Your task to perform on an android device: check the backup settings in the google photos Image 0: 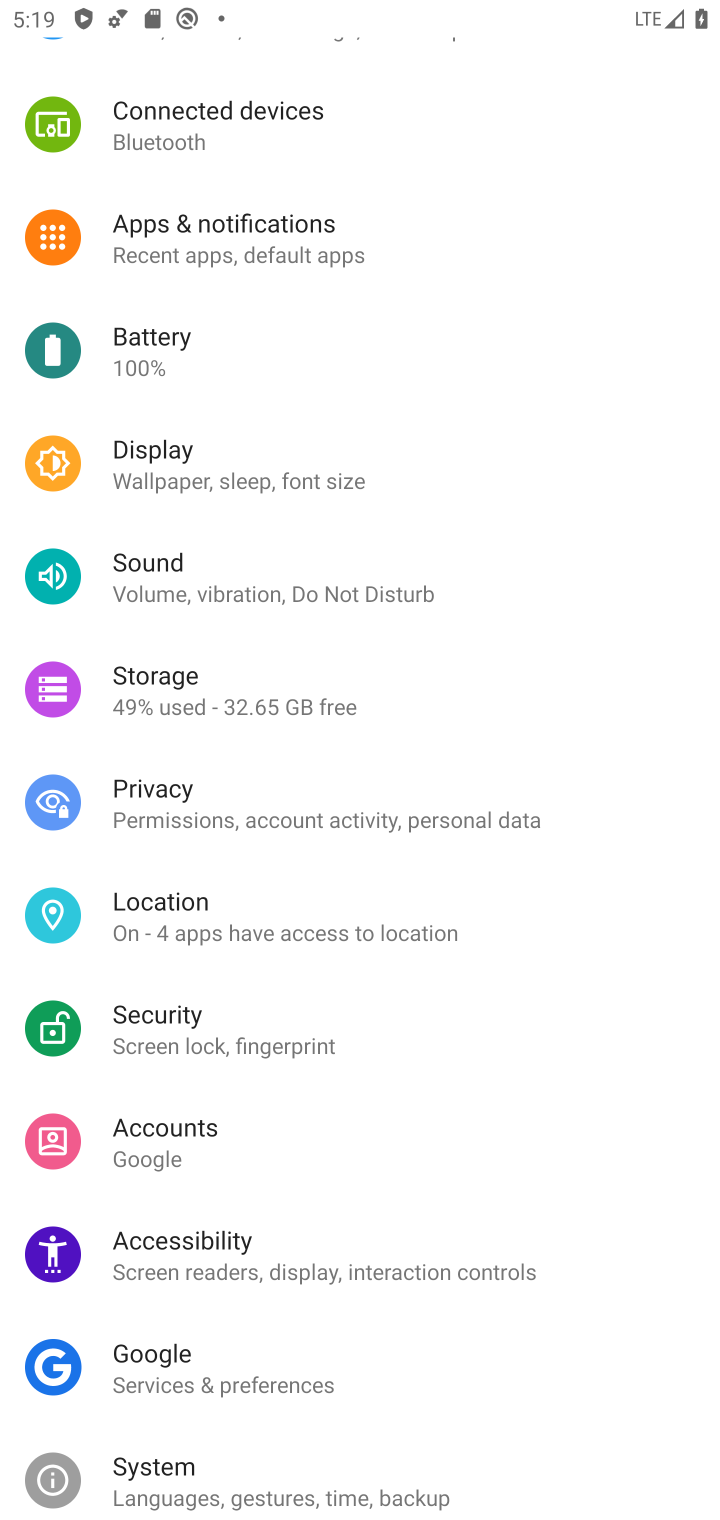
Step 0: press back button
Your task to perform on an android device: check the backup settings in the google photos Image 1: 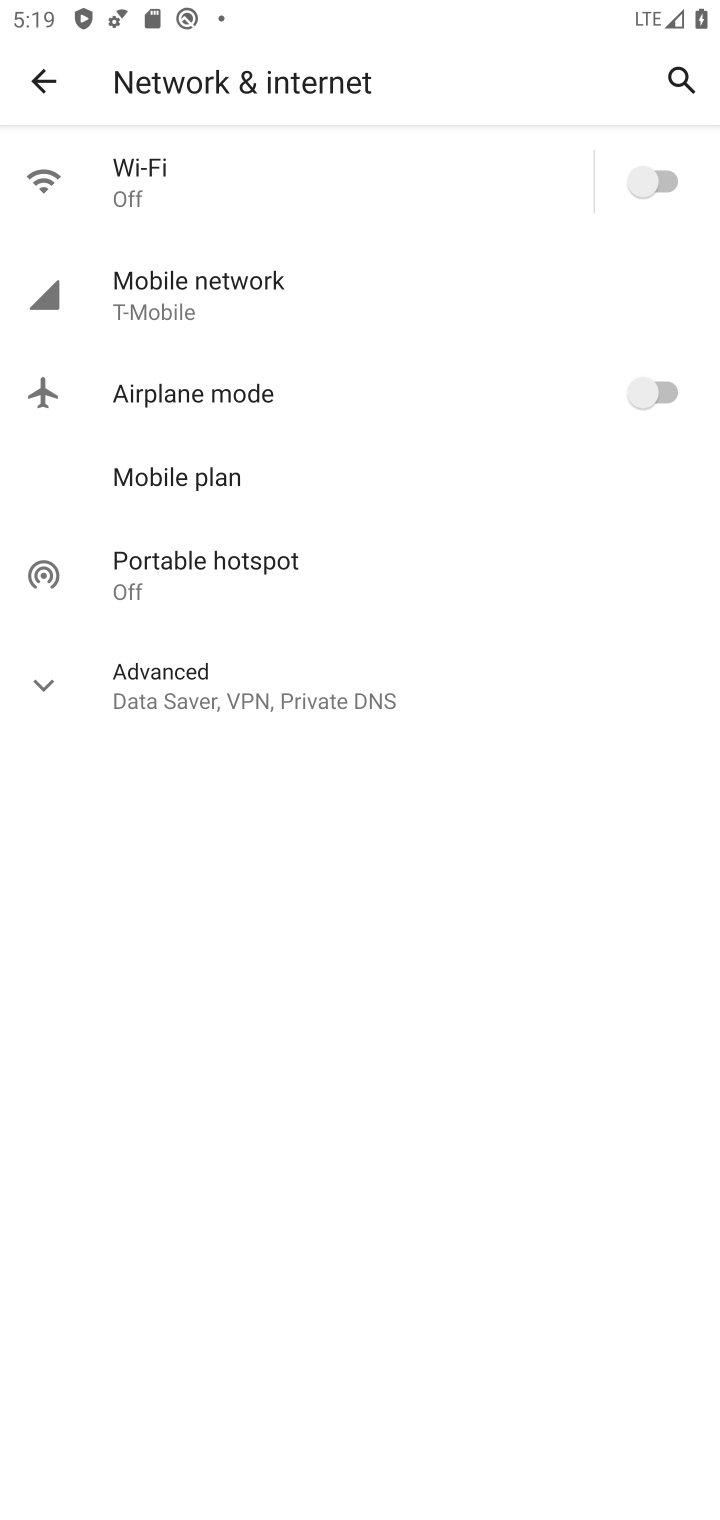
Step 1: press home button
Your task to perform on an android device: check the backup settings in the google photos Image 2: 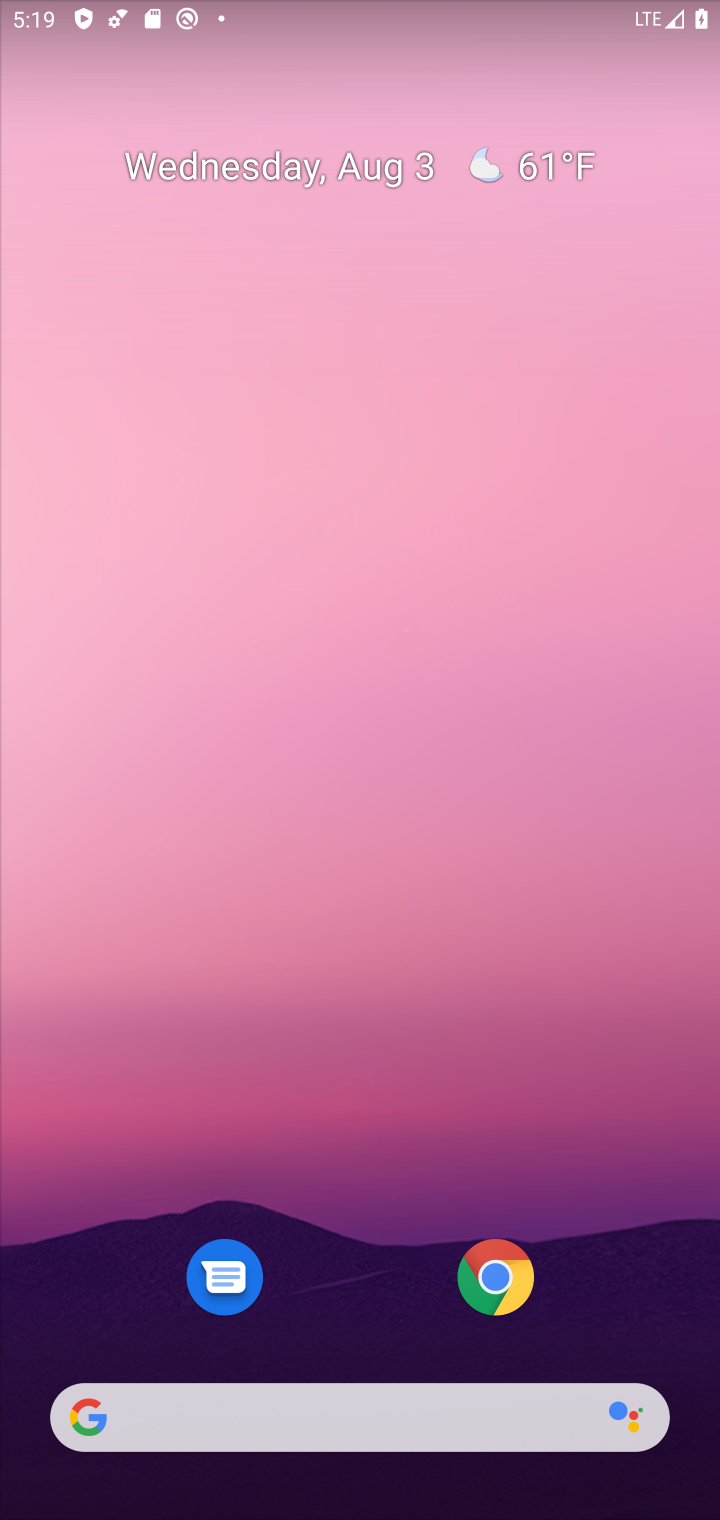
Step 2: drag from (357, 1280) to (506, 141)
Your task to perform on an android device: check the backup settings in the google photos Image 3: 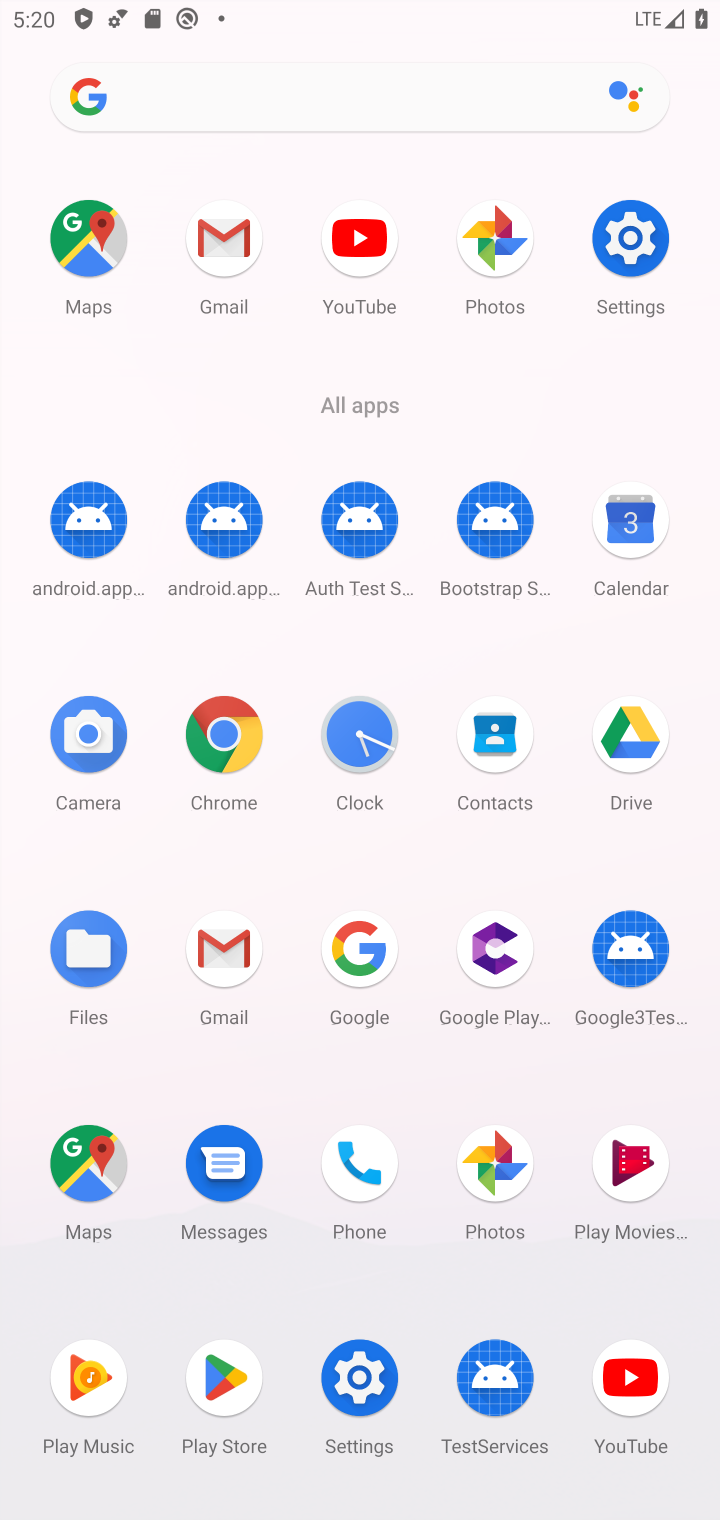
Step 3: click (504, 1169)
Your task to perform on an android device: check the backup settings in the google photos Image 4: 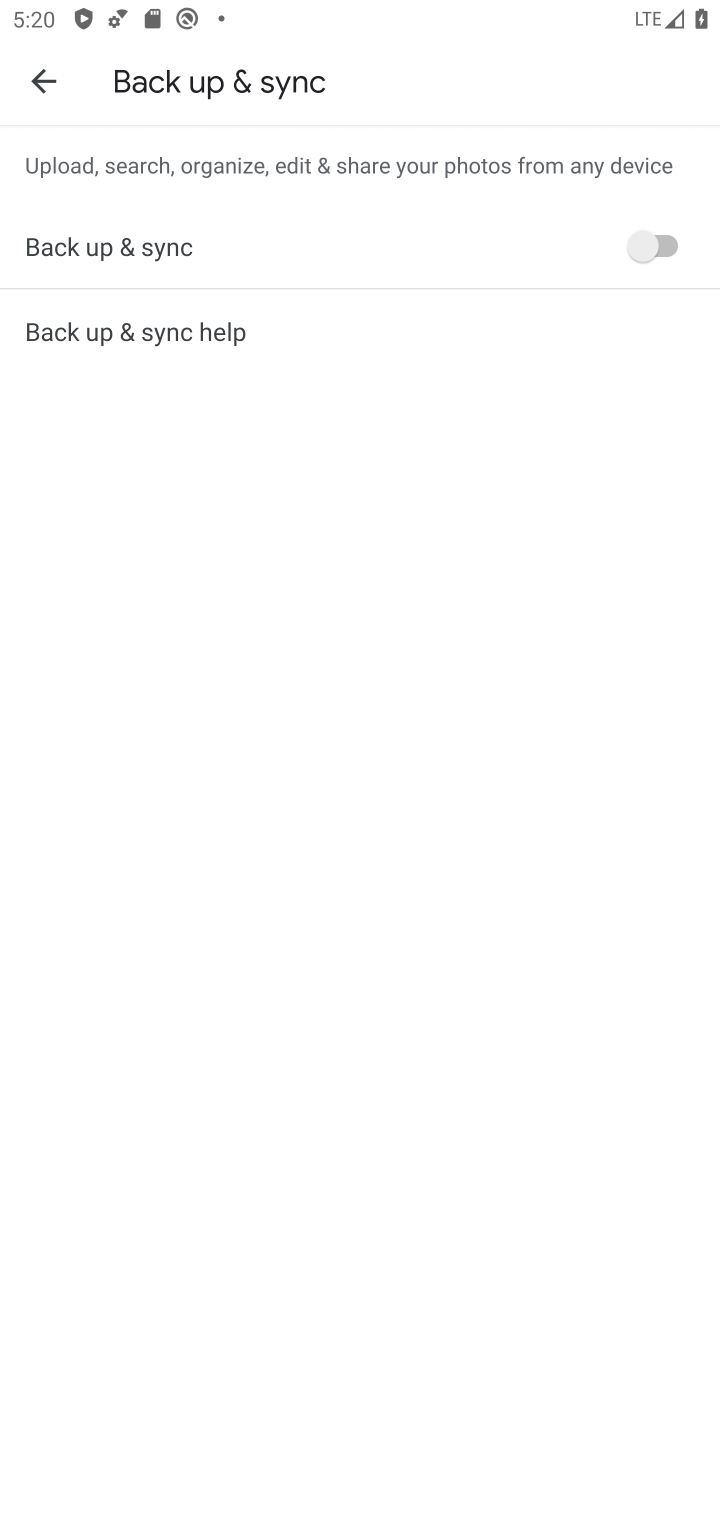
Step 4: task complete